Your task to perform on an android device: toggle improve location accuracy Image 0: 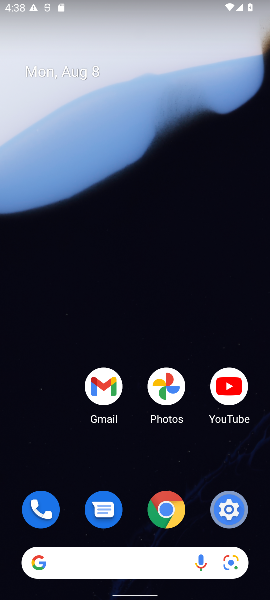
Step 0: click (231, 509)
Your task to perform on an android device: toggle improve location accuracy Image 1: 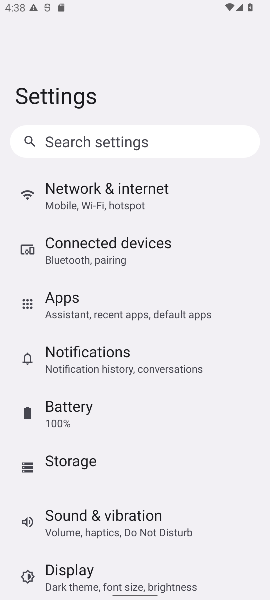
Step 1: drag from (133, 471) to (100, 179)
Your task to perform on an android device: toggle improve location accuracy Image 2: 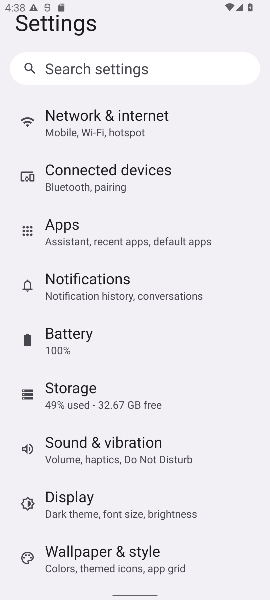
Step 2: drag from (168, 476) to (168, 108)
Your task to perform on an android device: toggle improve location accuracy Image 3: 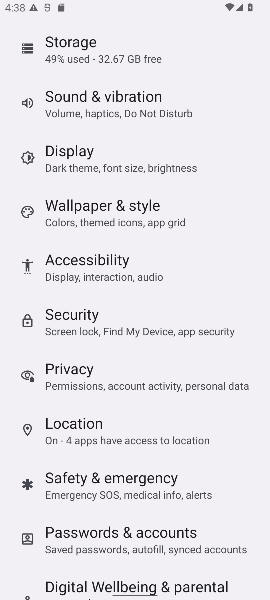
Step 3: click (71, 422)
Your task to perform on an android device: toggle improve location accuracy Image 4: 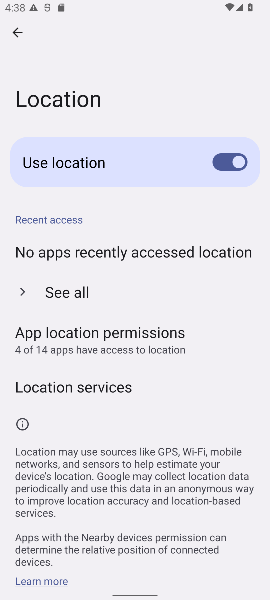
Step 4: click (74, 384)
Your task to perform on an android device: toggle improve location accuracy Image 5: 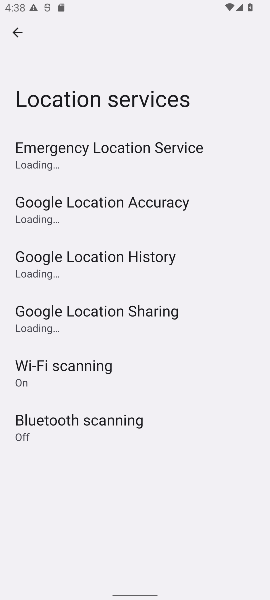
Step 5: click (120, 205)
Your task to perform on an android device: toggle improve location accuracy Image 6: 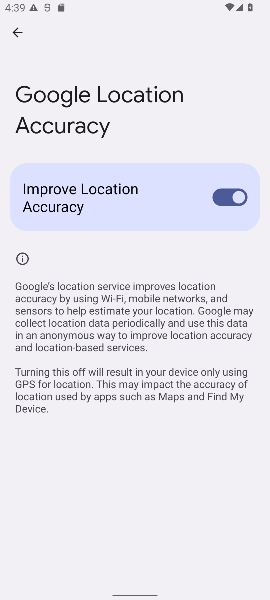
Step 6: click (233, 193)
Your task to perform on an android device: toggle improve location accuracy Image 7: 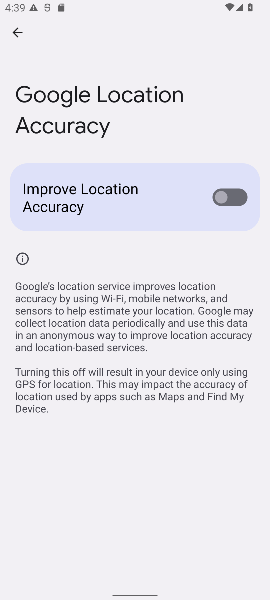
Step 7: task complete